Your task to perform on an android device: What is the news today? Image 0: 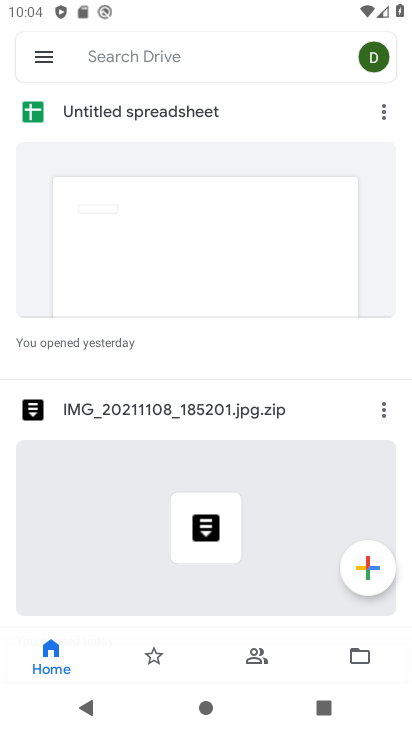
Step 0: press home button
Your task to perform on an android device: What is the news today? Image 1: 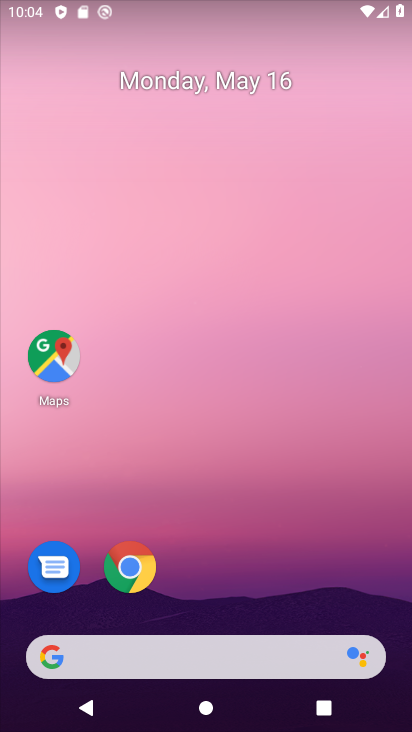
Step 1: task complete